Your task to perform on an android device: Open eBay Image 0: 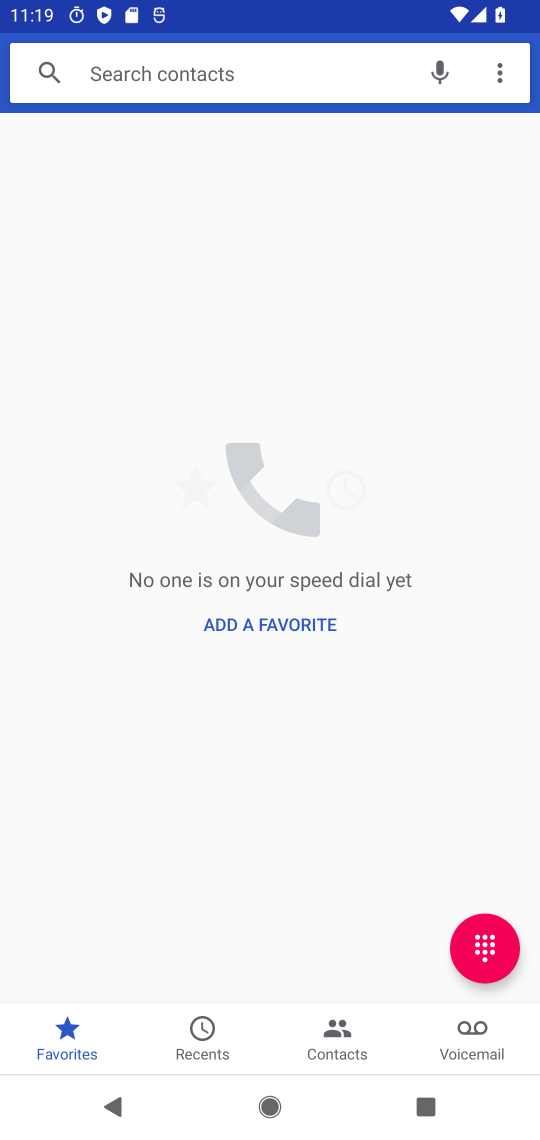
Step 0: press home button
Your task to perform on an android device: Open eBay Image 1: 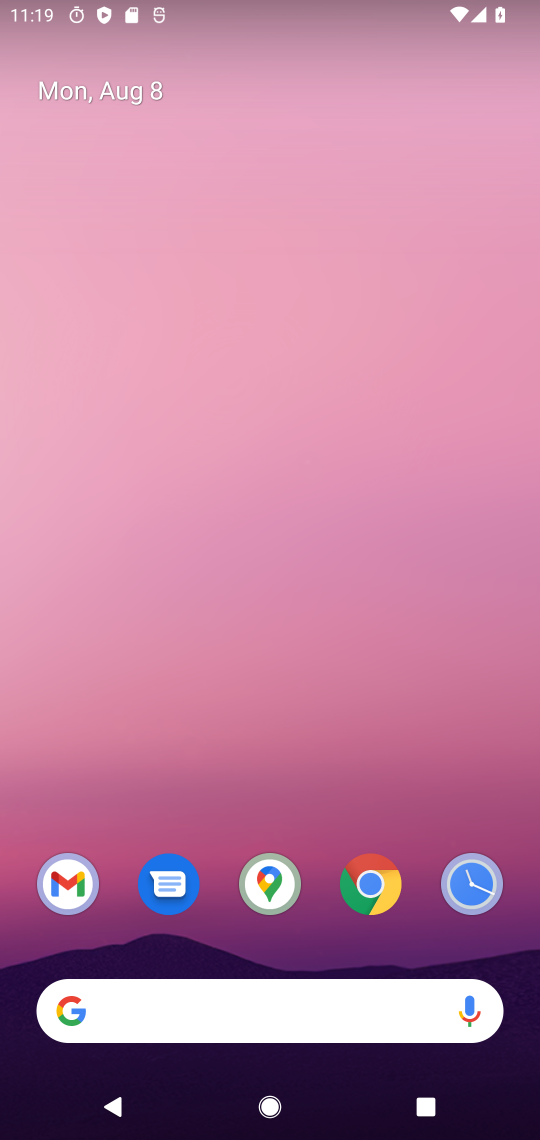
Step 1: click (425, 810)
Your task to perform on an android device: Open eBay Image 2: 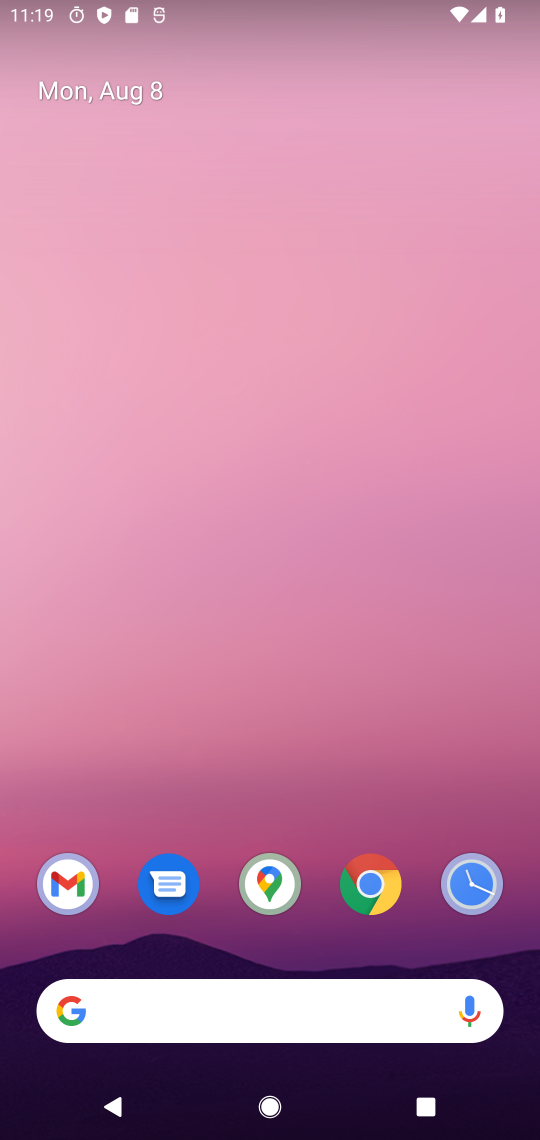
Step 2: click (367, 891)
Your task to perform on an android device: Open eBay Image 3: 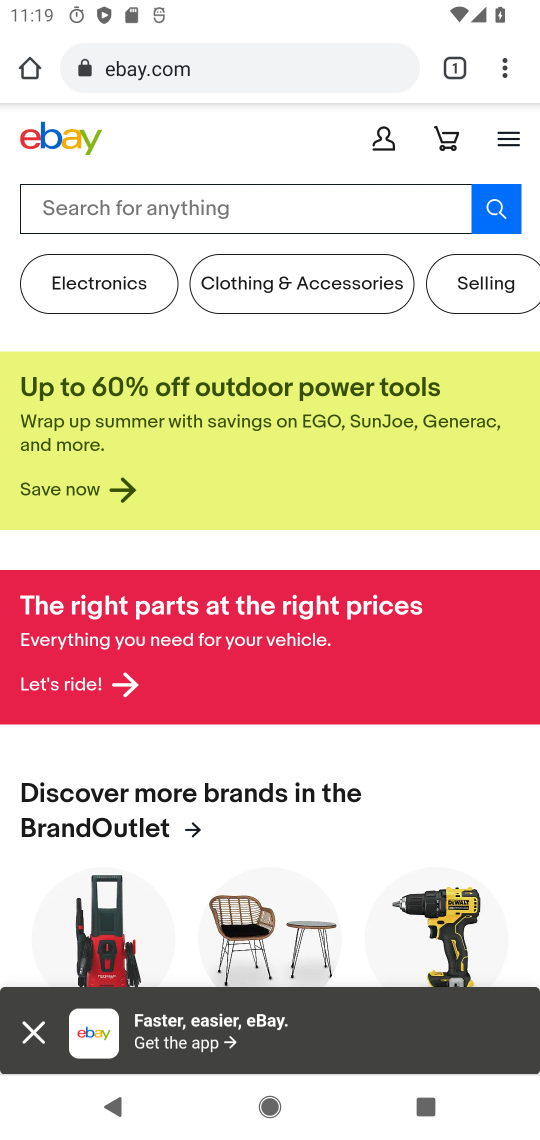
Step 3: task complete